Your task to perform on an android device: empty trash in the gmail app Image 0: 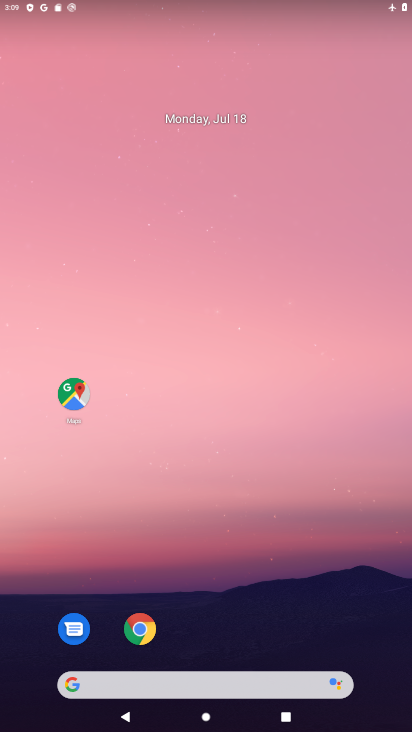
Step 0: drag from (190, 667) to (143, 141)
Your task to perform on an android device: empty trash in the gmail app Image 1: 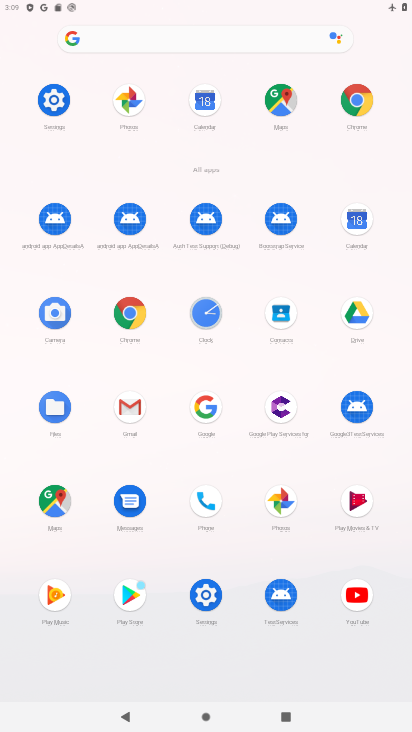
Step 1: click (278, 501)
Your task to perform on an android device: empty trash in the gmail app Image 2: 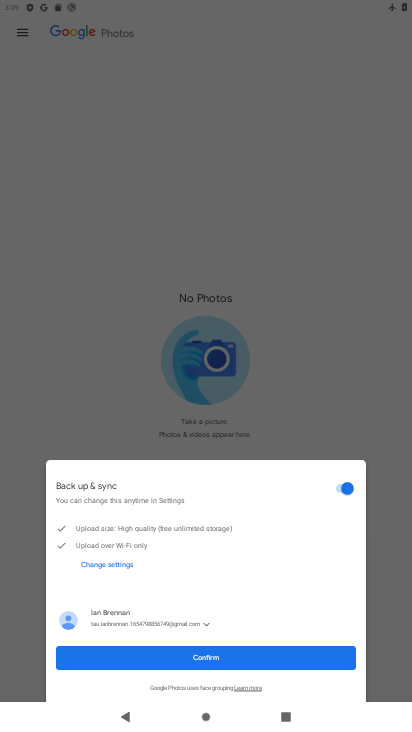
Step 2: drag from (208, 286) to (223, 510)
Your task to perform on an android device: empty trash in the gmail app Image 3: 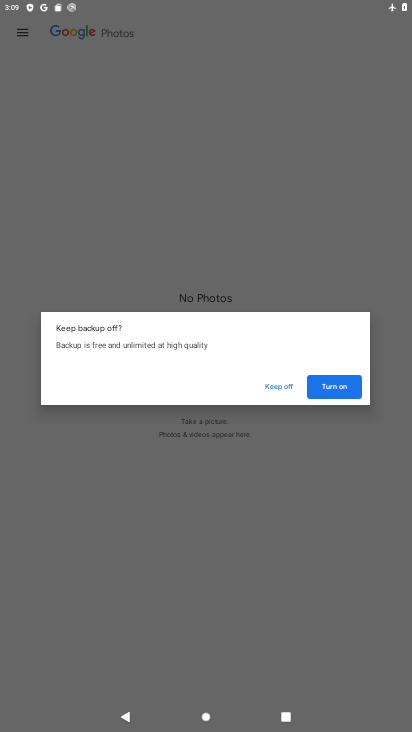
Step 3: click (206, 652)
Your task to perform on an android device: empty trash in the gmail app Image 4: 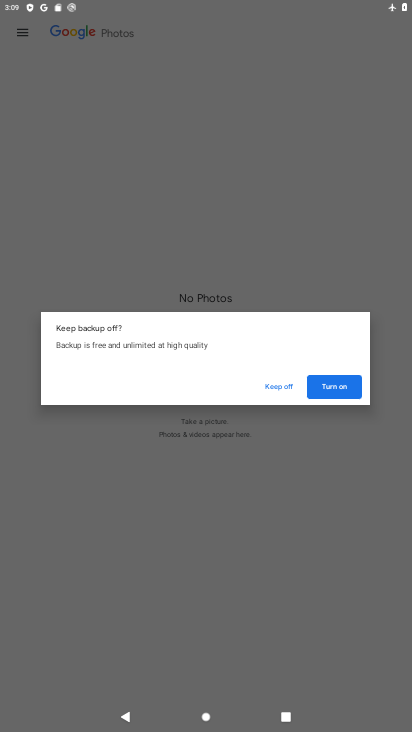
Step 4: click (344, 399)
Your task to perform on an android device: empty trash in the gmail app Image 5: 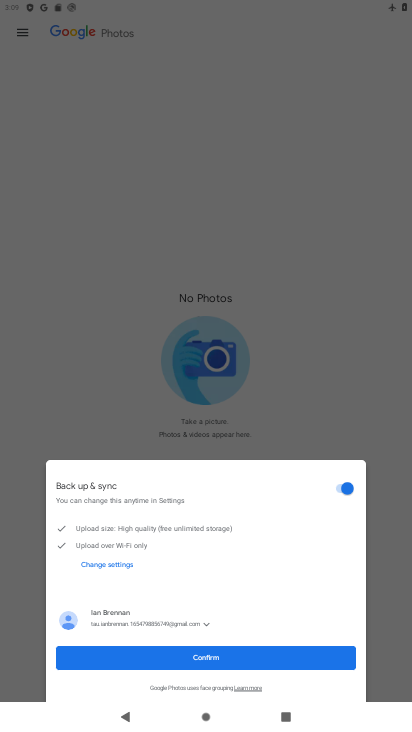
Step 5: click (254, 658)
Your task to perform on an android device: empty trash in the gmail app Image 6: 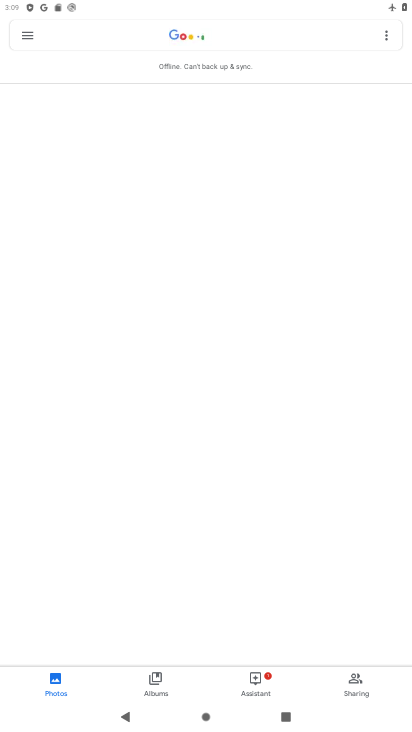
Step 6: click (22, 32)
Your task to perform on an android device: empty trash in the gmail app Image 7: 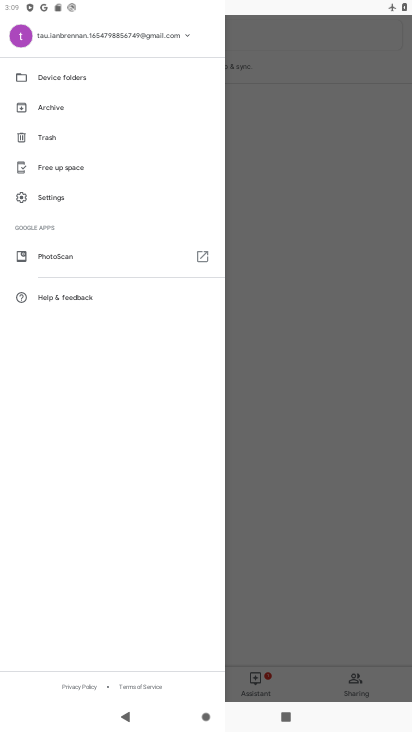
Step 7: click (50, 142)
Your task to perform on an android device: empty trash in the gmail app Image 8: 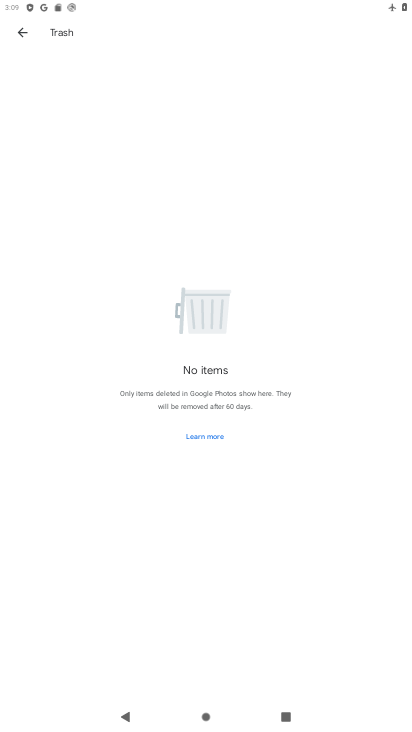
Step 8: task complete